Your task to perform on an android device: change the clock style Image 0: 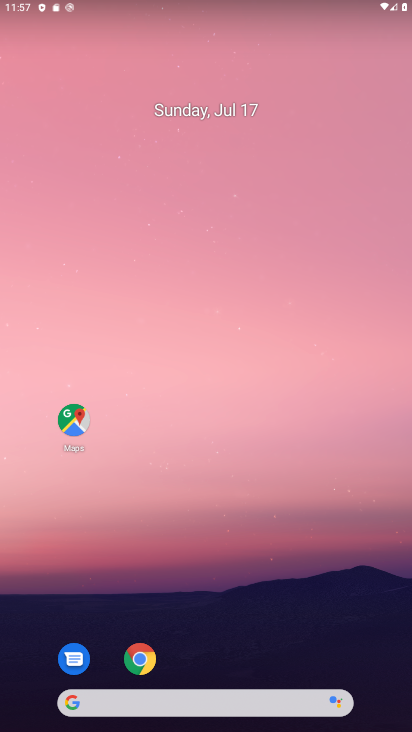
Step 0: drag from (292, 588) to (276, 181)
Your task to perform on an android device: change the clock style Image 1: 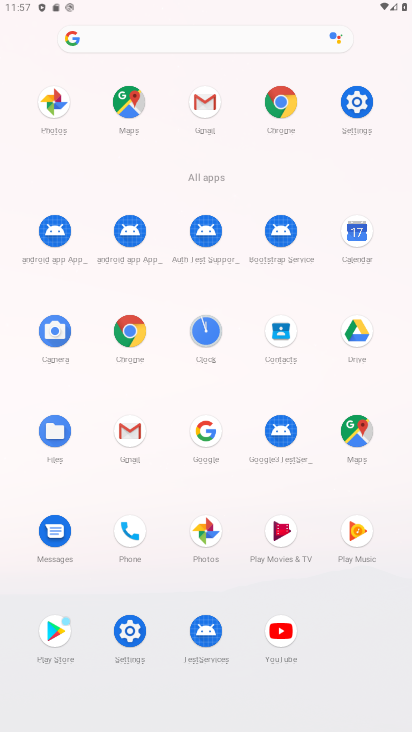
Step 1: click (198, 326)
Your task to perform on an android device: change the clock style Image 2: 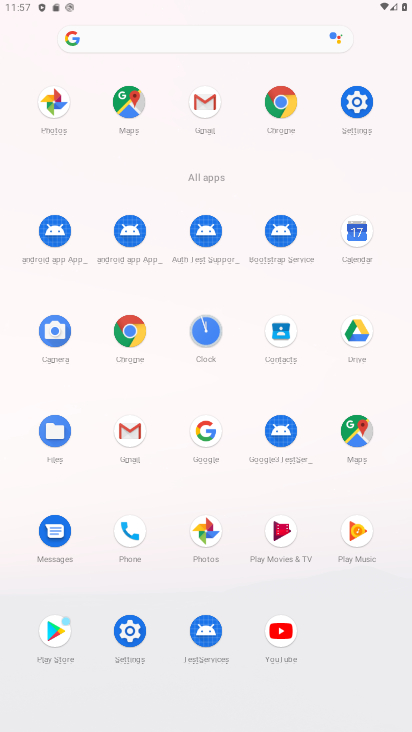
Step 2: click (199, 326)
Your task to perform on an android device: change the clock style Image 3: 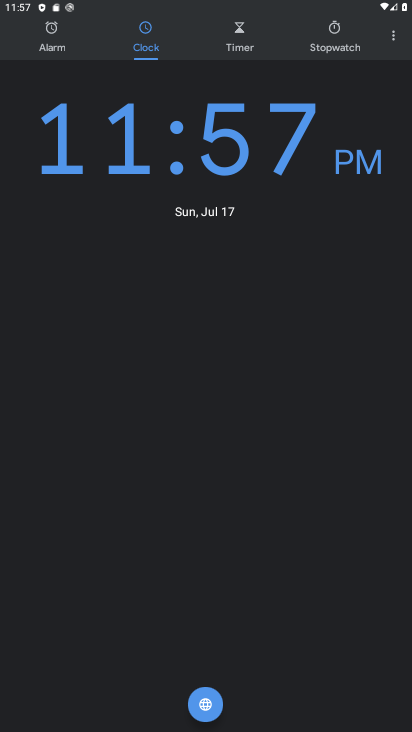
Step 3: click (384, 35)
Your task to perform on an android device: change the clock style Image 4: 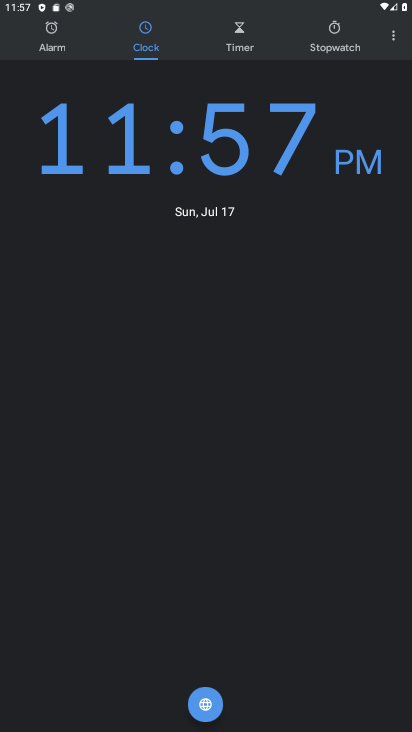
Step 4: click (390, 28)
Your task to perform on an android device: change the clock style Image 5: 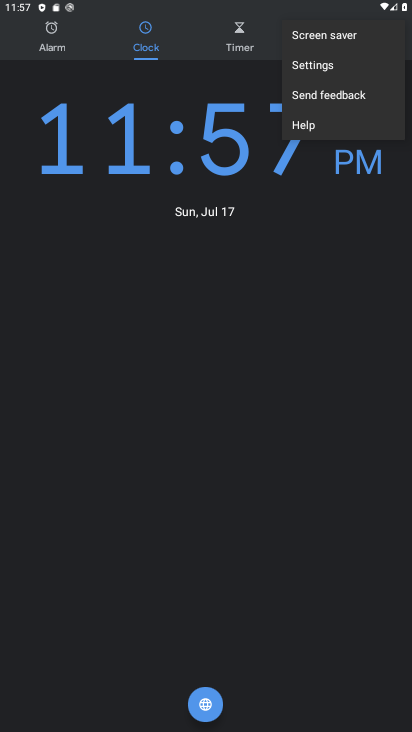
Step 5: click (318, 61)
Your task to perform on an android device: change the clock style Image 6: 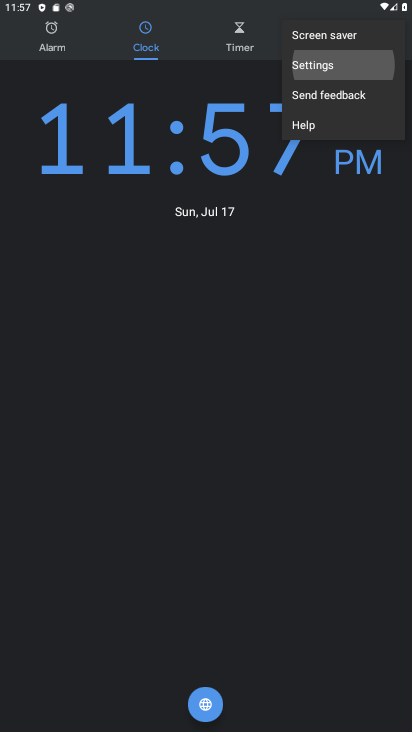
Step 6: click (318, 61)
Your task to perform on an android device: change the clock style Image 7: 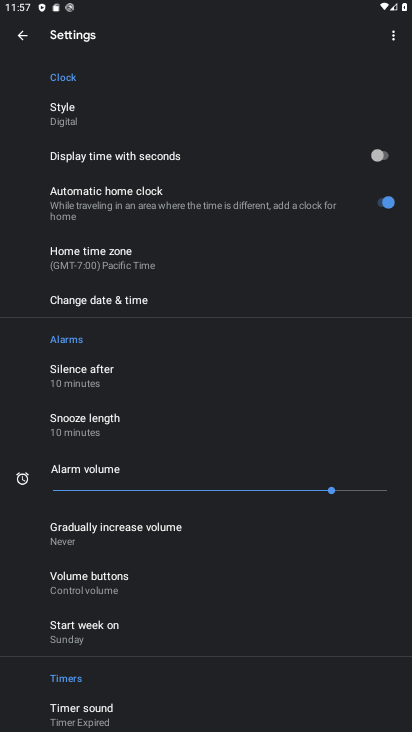
Step 7: click (75, 116)
Your task to perform on an android device: change the clock style Image 8: 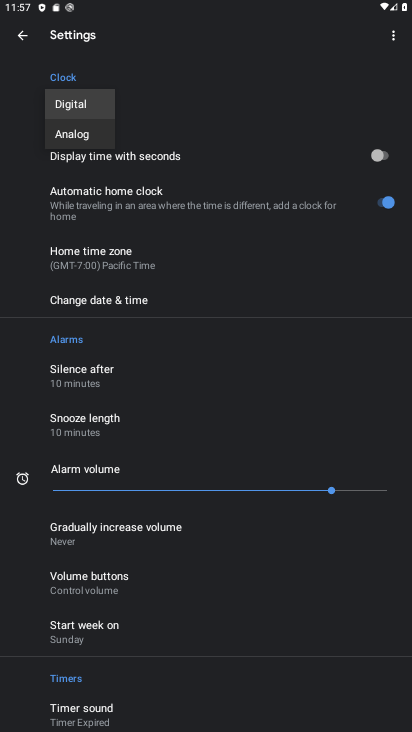
Step 8: click (76, 133)
Your task to perform on an android device: change the clock style Image 9: 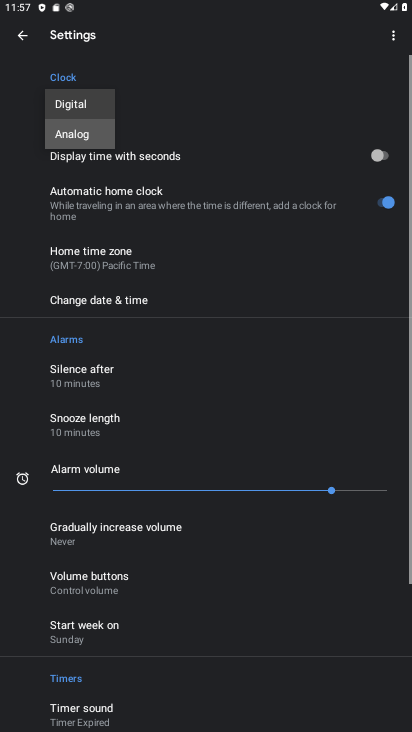
Step 9: click (76, 133)
Your task to perform on an android device: change the clock style Image 10: 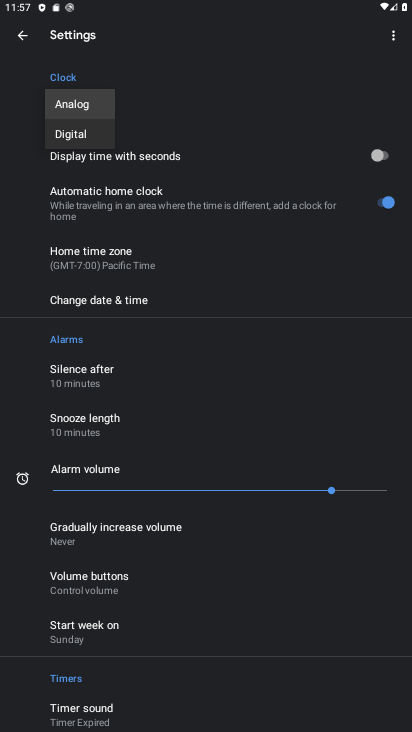
Step 10: task complete